Your task to perform on an android device: allow cookies in the chrome app Image 0: 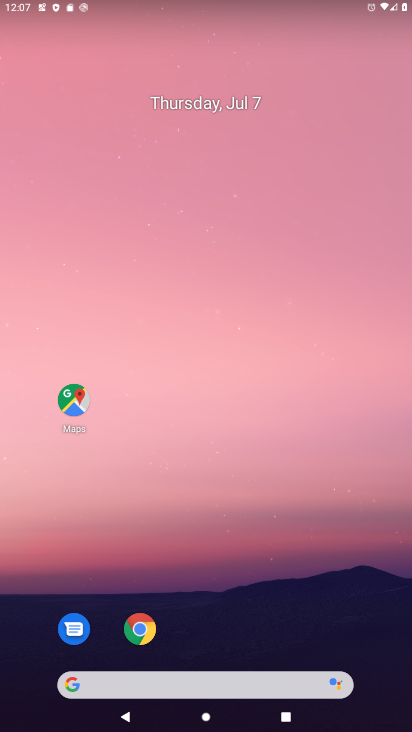
Step 0: click (159, 620)
Your task to perform on an android device: allow cookies in the chrome app Image 1: 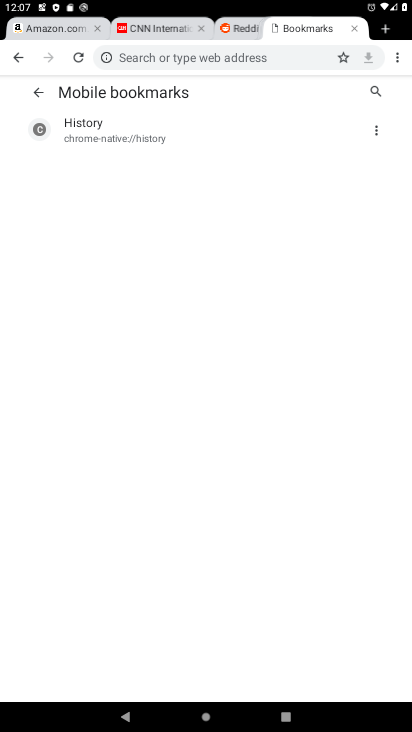
Step 1: click (400, 58)
Your task to perform on an android device: allow cookies in the chrome app Image 2: 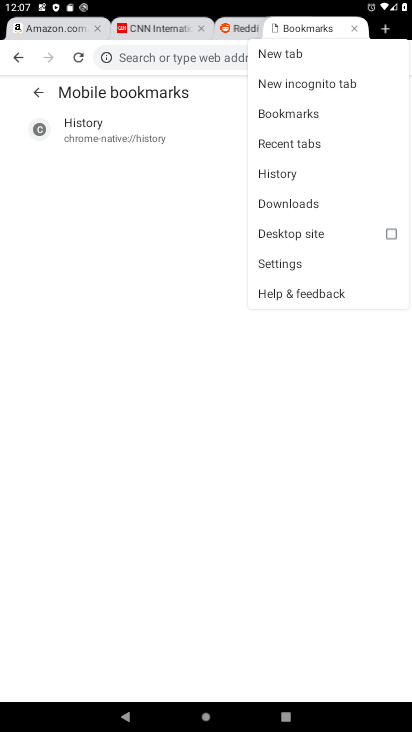
Step 2: click (293, 269)
Your task to perform on an android device: allow cookies in the chrome app Image 3: 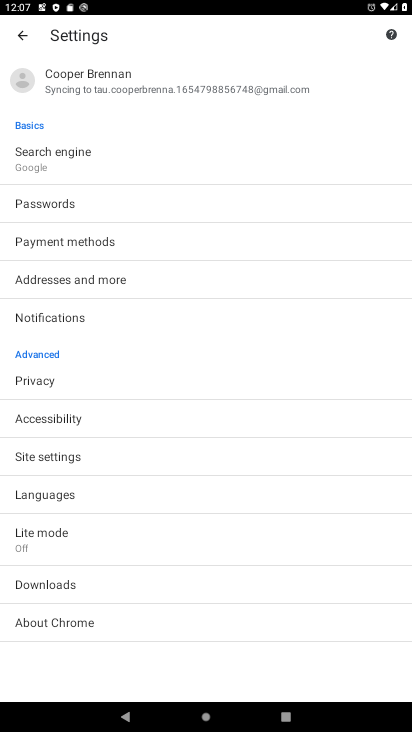
Step 3: drag from (145, 568) to (202, 279)
Your task to perform on an android device: allow cookies in the chrome app Image 4: 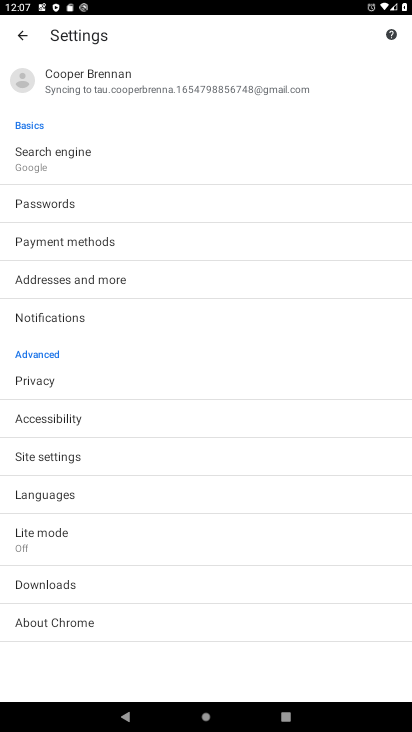
Step 4: drag from (156, 291) to (161, 548)
Your task to perform on an android device: allow cookies in the chrome app Image 5: 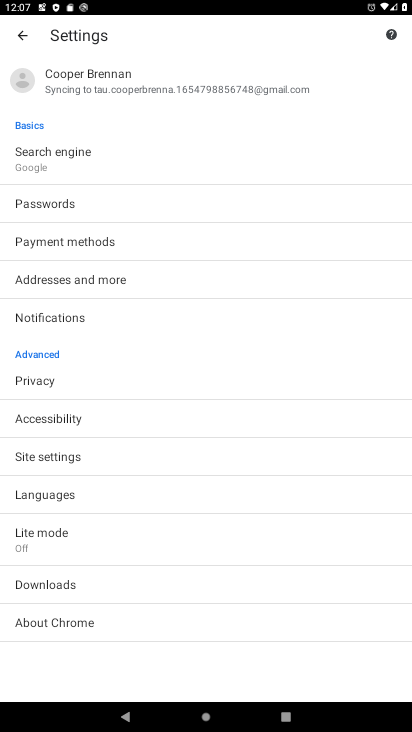
Step 5: click (85, 459)
Your task to perform on an android device: allow cookies in the chrome app Image 6: 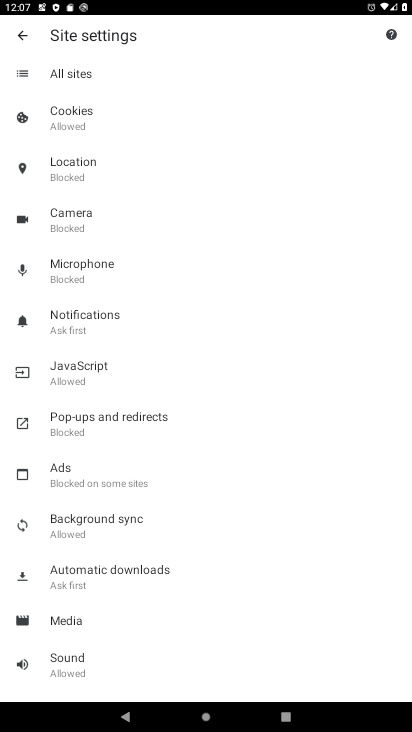
Step 6: click (155, 124)
Your task to perform on an android device: allow cookies in the chrome app Image 7: 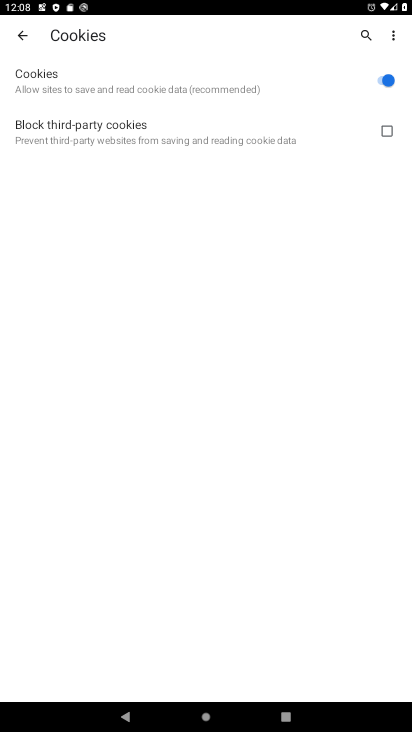
Step 7: task complete